Your task to perform on an android device: Open settings on Google Maps Image 0: 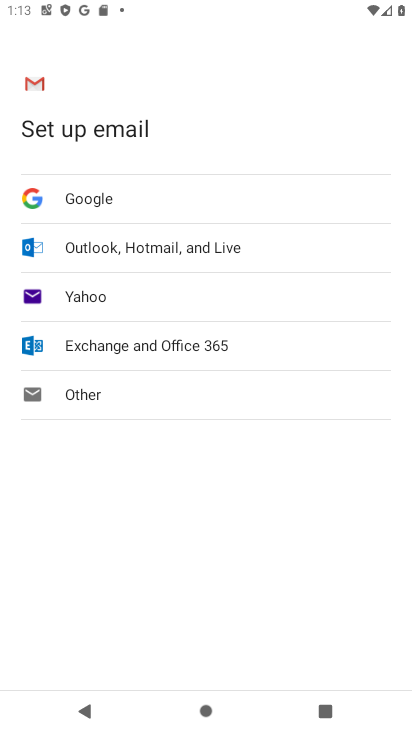
Step 0: press home button
Your task to perform on an android device: Open settings on Google Maps Image 1: 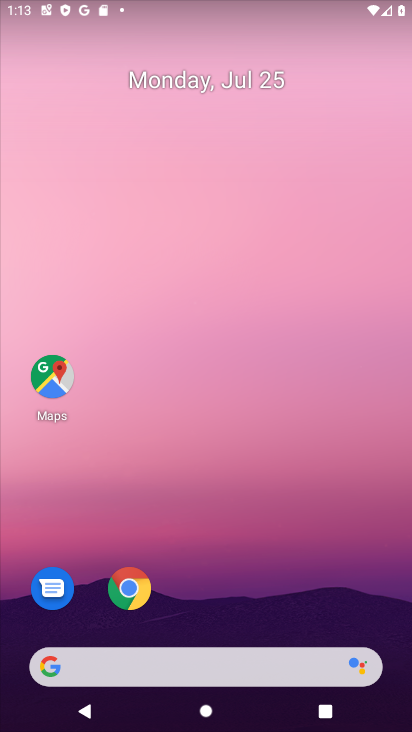
Step 1: click (50, 390)
Your task to perform on an android device: Open settings on Google Maps Image 2: 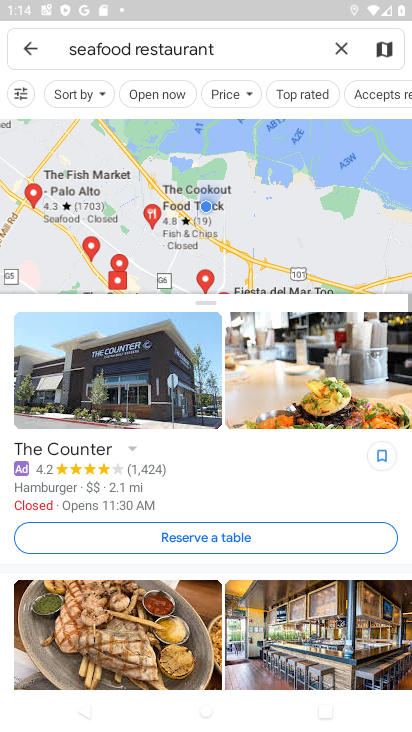
Step 2: click (23, 51)
Your task to perform on an android device: Open settings on Google Maps Image 3: 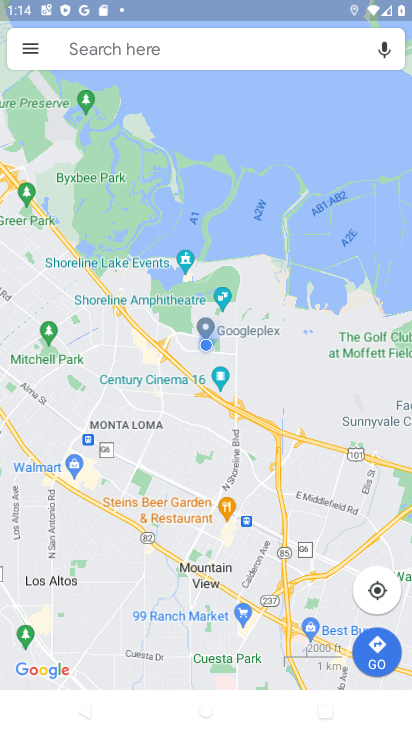
Step 3: click (148, 51)
Your task to perform on an android device: Open settings on Google Maps Image 4: 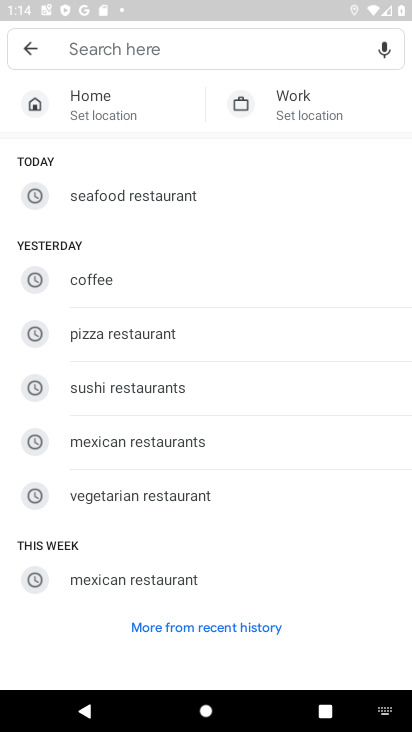
Step 4: click (26, 54)
Your task to perform on an android device: Open settings on Google Maps Image 5: 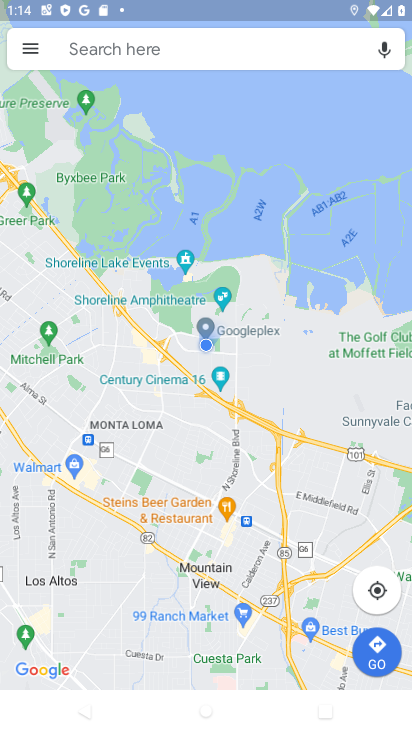
Step 5: click (26, 54)
Your task to perform on an android device: Open settings on Google Maps Image 6: 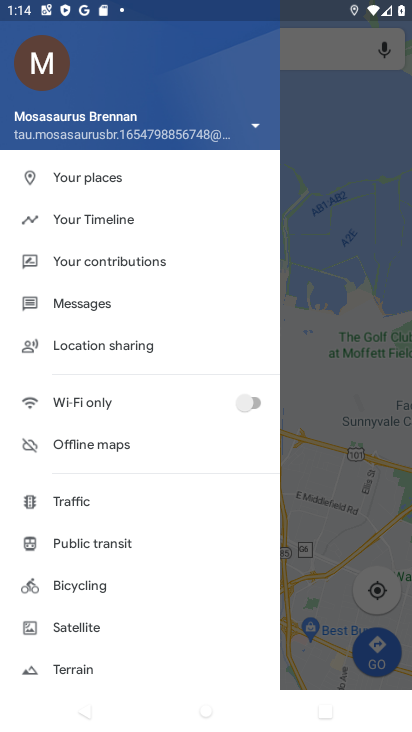
Step 6: drag from (95, 593) to (103, 278)
Your task to perform on an android device: Open settings on Google Maps Image 7: 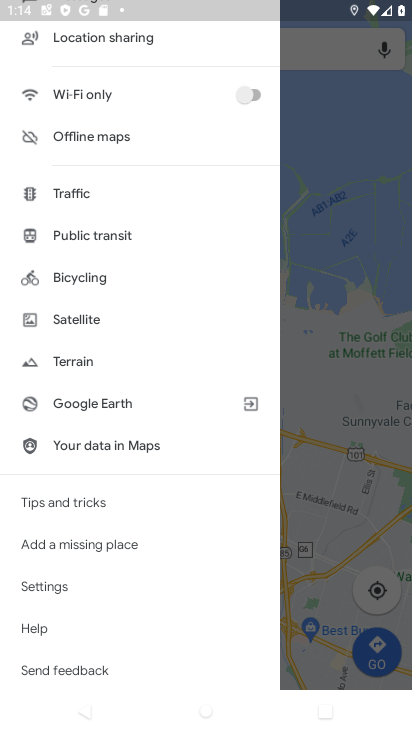
Step 7: click (60, 581)
Your task to perform on an android device: Open settings on Google Maps Image 8: 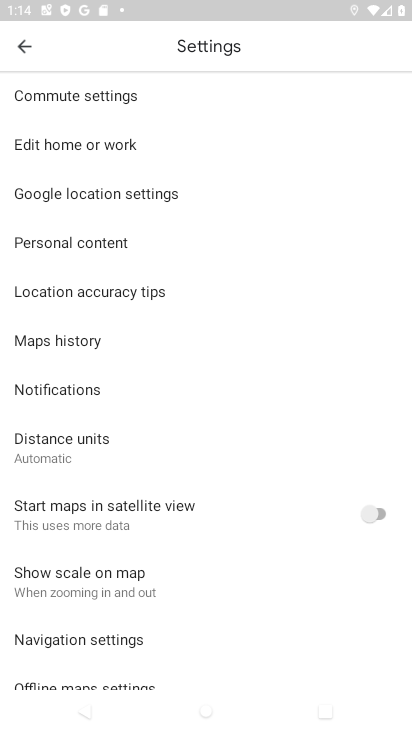
Step 8: task complete